Your task to perform on an android device: toggle pop-ups in chrome Image 0: 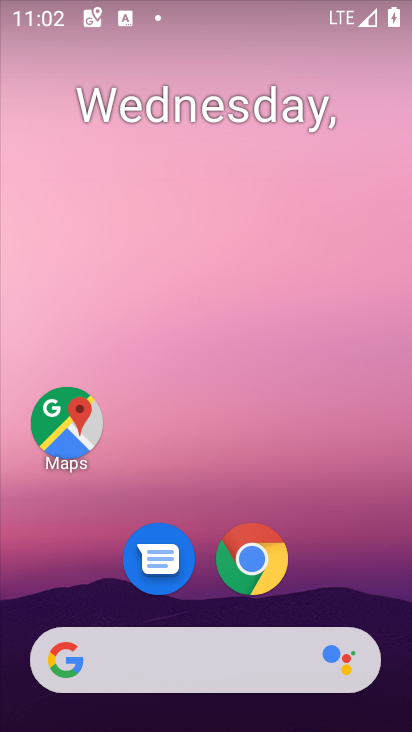
Step 0: drag from (158, 637) to (202, 219)
Your task to perform on an android device: toggle pop-ups in chrome Image 1: 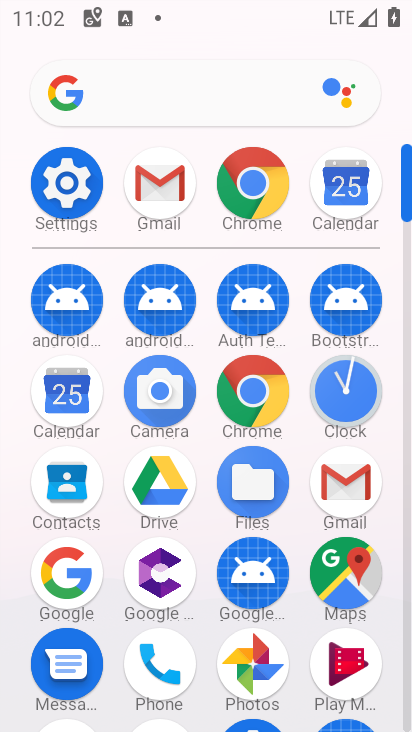
Step 1: click (270, 189)
Your task to perform on an android device: toggle pop-ups in chrome Image 2: 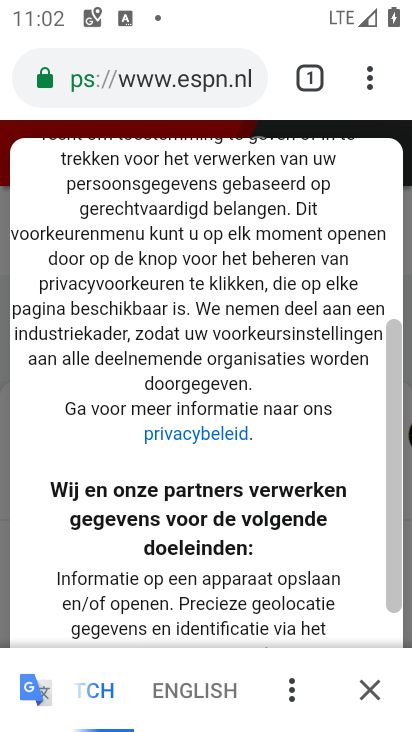
Step 2: click (381, 79)
Your task to perform on an android device: toggle pop-ups in chrome Image 3: 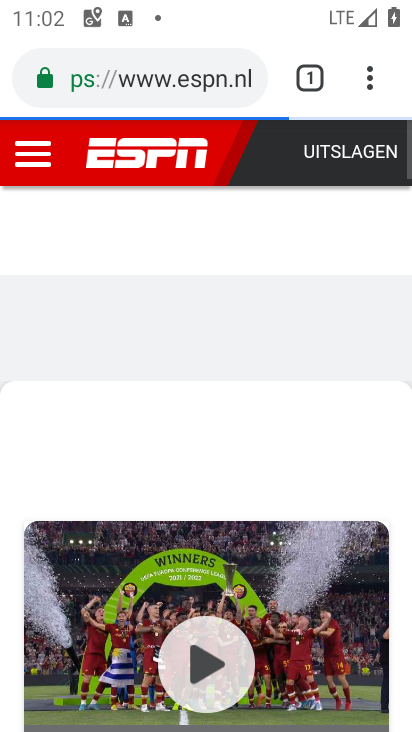
Step 3: click (367, 86)
Your task to perform on an android device: toggle pop-ups in chrome Image 4: 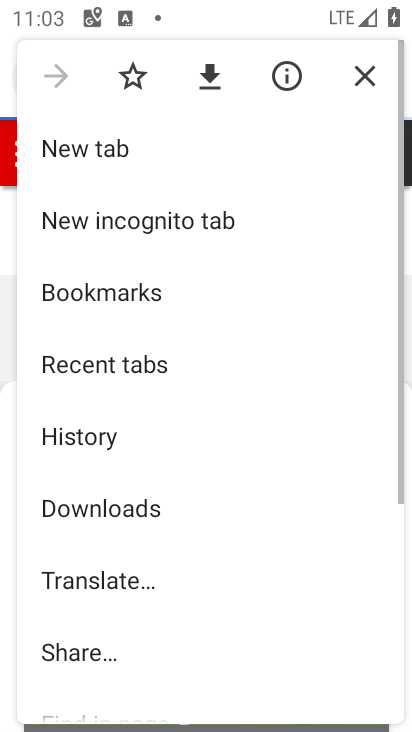
Step 4: drag from (190, 551) to (183, 63)
Your task to perform on an android device: toggle pop-ups in chrome Image 5: 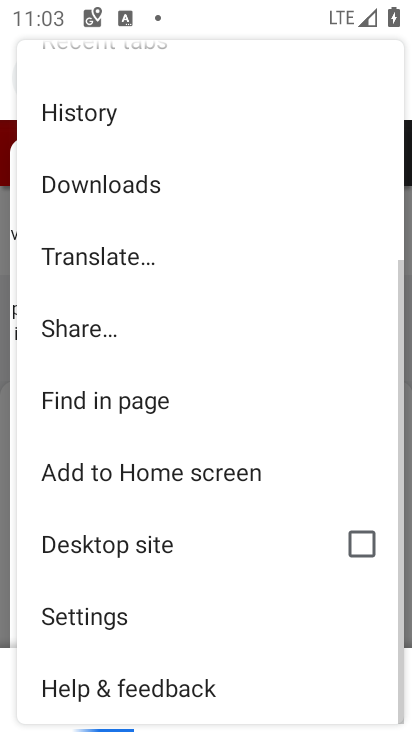
Step 5: click (99, 609)
Your task to perform on an android device: toggle pop-ups in chrome Image 6: 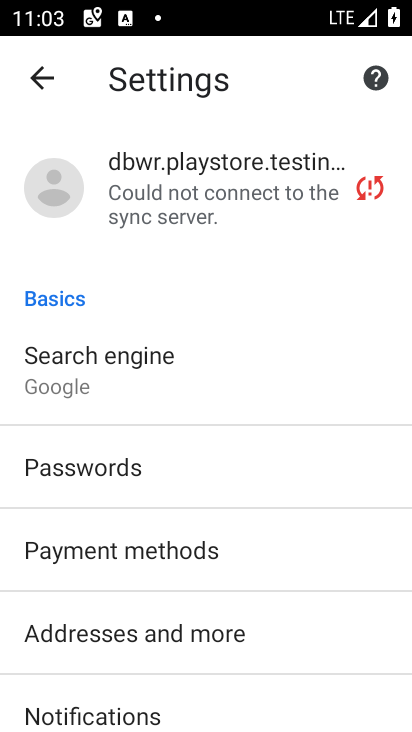
Step 6: drag from (300, 652) to (246, 16)
Your task to perform on an android device: toggle pop-ups in chrome Image 7: 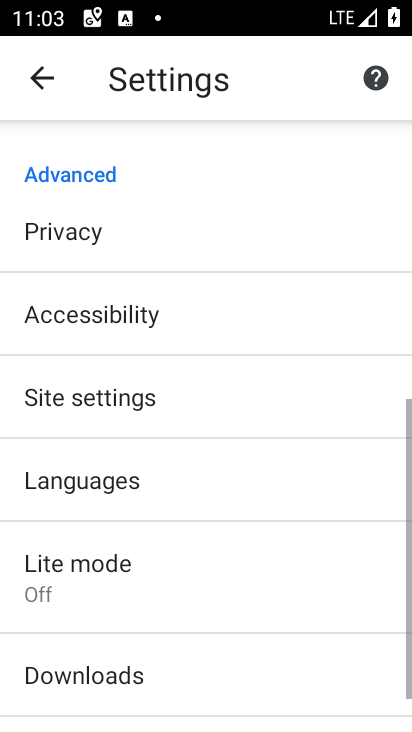
Step 7: drag from (303, 625) to (197, 34)
Your task to perform on an android device: toggle pop-ups in chrome Image 8: 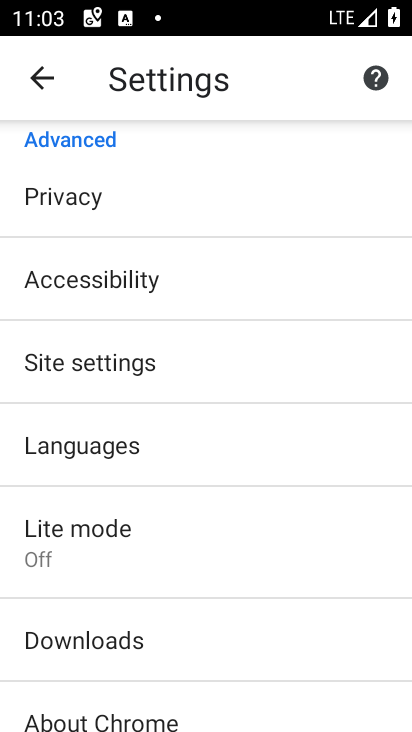
Step 8: drag from (111, 619) to (181, 118)
Your task to perform on an android device: toggle pop-ups in chrome Image 9: 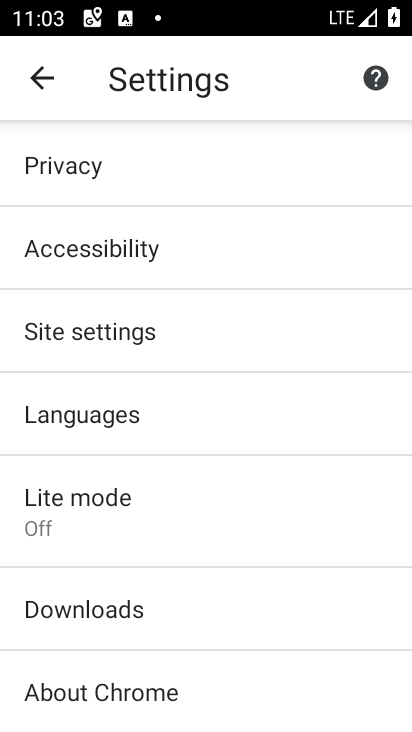
Step 9: click (166, 342)
Your task to perform on an android device: toggle pop-ups in chrome Image 10: 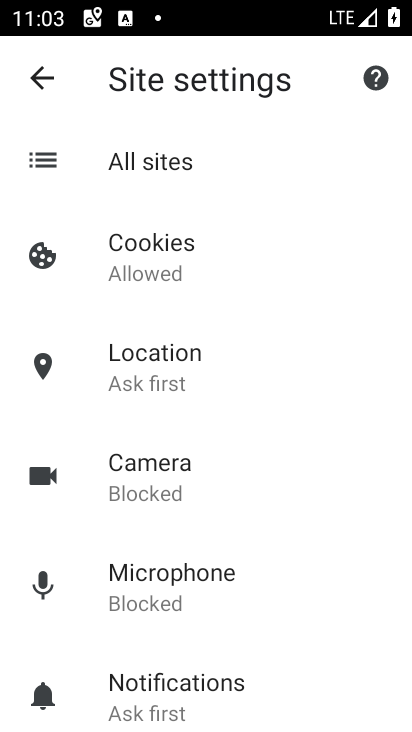
Step 10: drag from (180, 596) to (176, 216)
Your task to perform on an android device: toggle pop-ups in chrome Image 11: 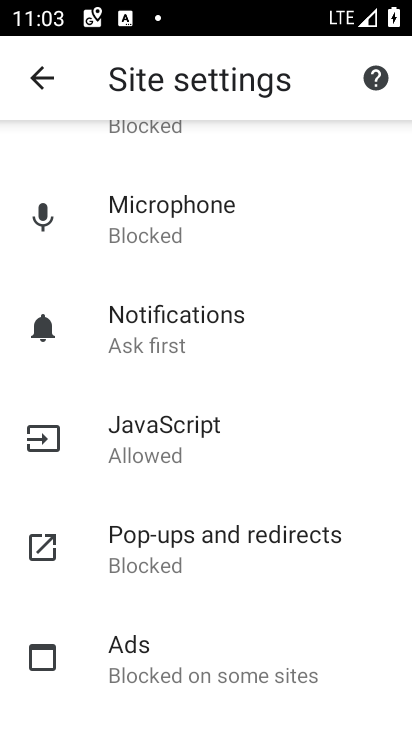
Step 11: click (175, 550)
Your task to perform on an android device: toggle pop-ups in chrome Image 12: 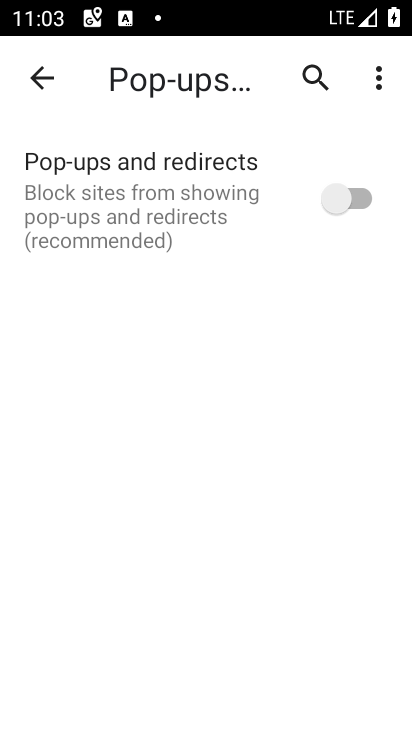
Step 12: click (174, 200)
Your task to perform on an android device: toggle pop-ups in chrome Image 13: 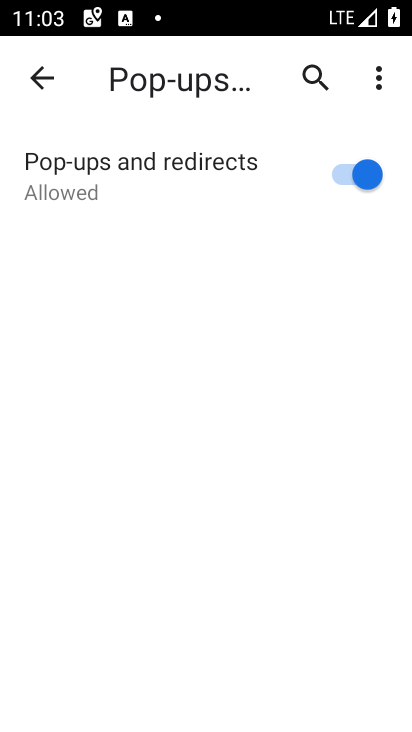
Step 13: task complete